Your task to perform on an android device: toggle priority inbox in the gmail app Image 0: 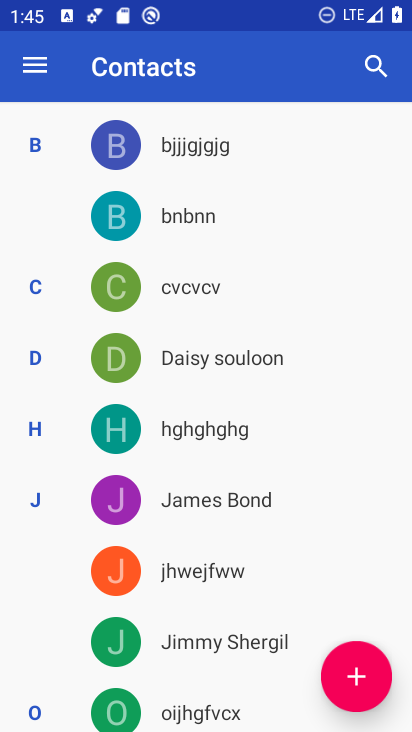
Step 0: press home button
Your task to perform on an android device: toggle priority inbox in the gmail app Image 1: 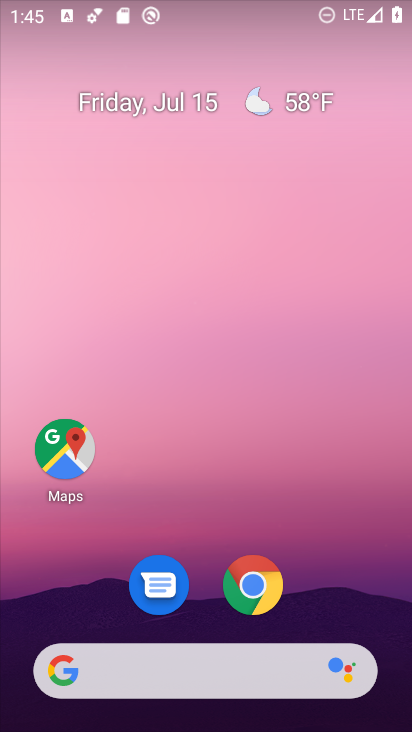
Step 1: drag from (238, 495) to (256, 2)
Your task to perform on an android device: toggle priority inbox in the gmail app Image 2: 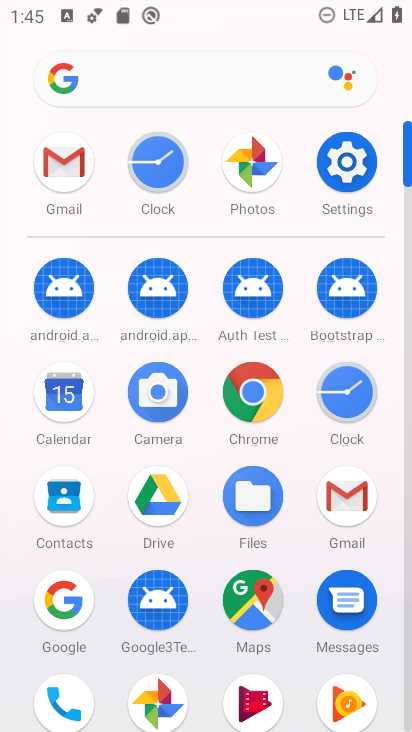
Step 2: click (350, 499)
Your task to perform on an android device: toggle priority inbox in the gmail app Image 3: 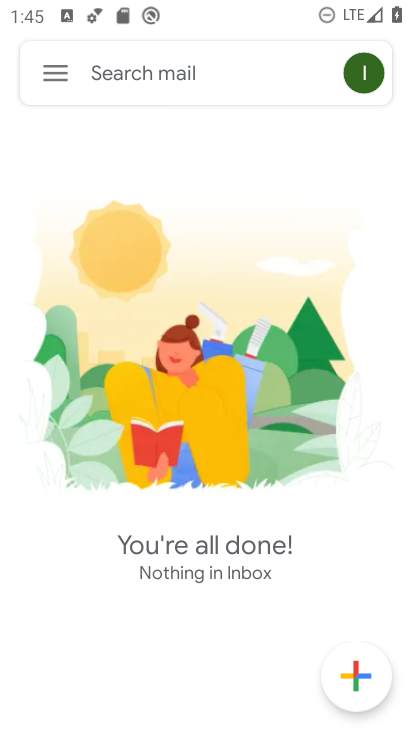
Step 3: click (58, 77)
Your task to perform on an android device: toggle priority inbox in the gmail app Image 4: 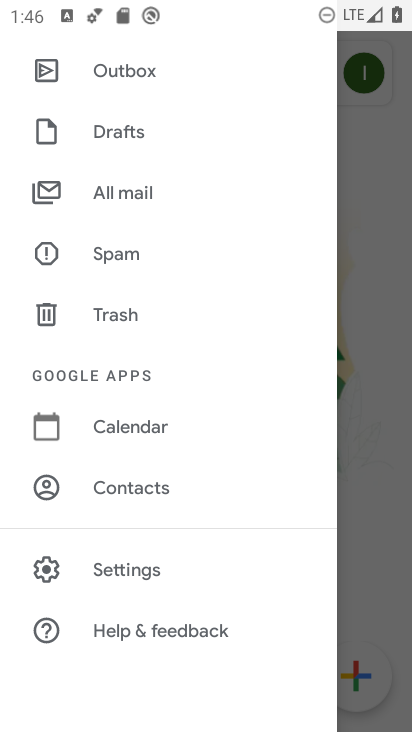
Step 4: click (116, 563)
Your task to perform on an android device: toggle priority inbox in the gmail app Image 5: 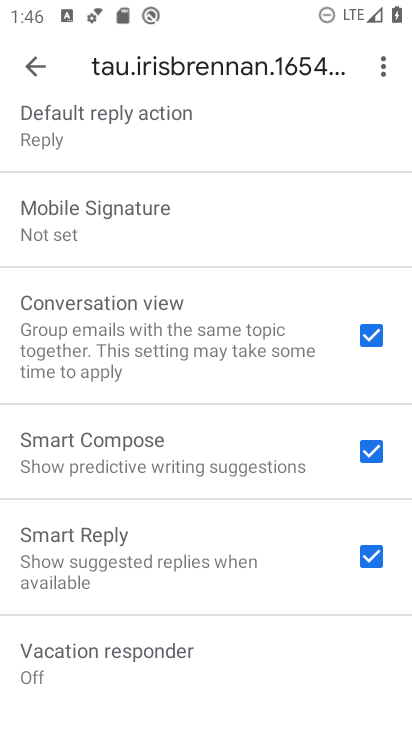
Step 5: drag from (213, 125) to (275, 664)
Your task to perform on an android device: toggle priority inbox in the gmail app Image 6: 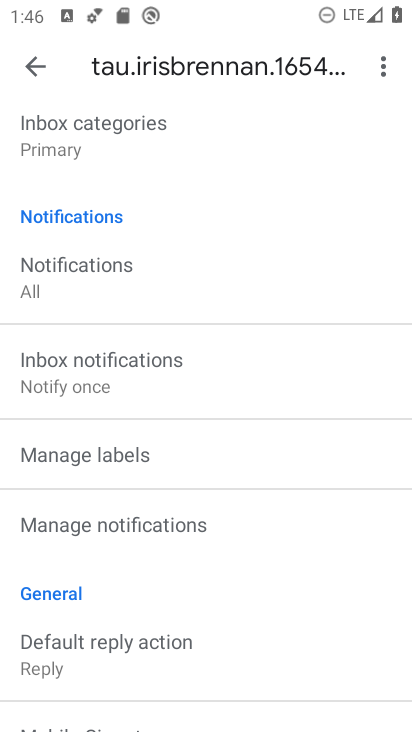
Step 6: drag from (211, 168) to (243, 491)
Your task to perform on an android device: toggle priority inbox in the gmail app Image 7: 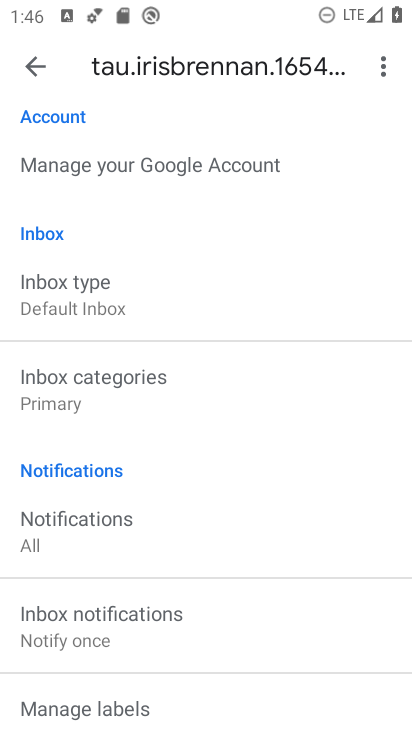
Step 7: click (72, 294)
Your task to perform on an android device: toggle priority inbox in the gmail app Image 8: 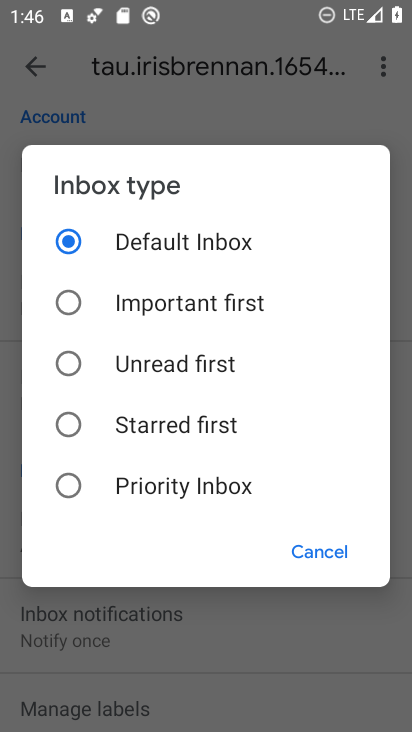
Step 8: click (70, 482)
Your task to perform on an android device: toggle priority inbox in the gmail app Image 9: 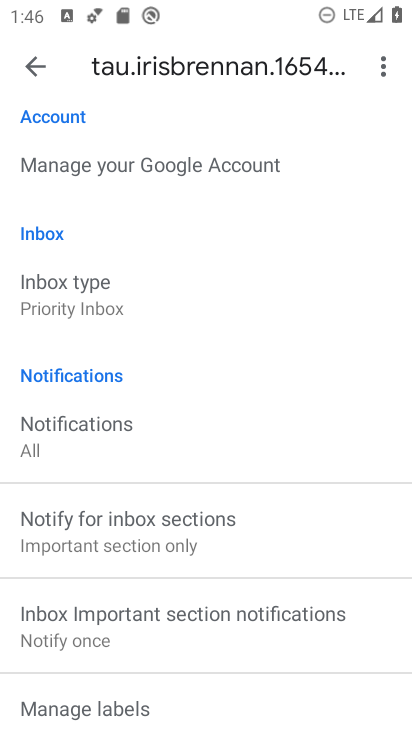
Step 9: task complete